Your task to perform on an android device: set an alarm Image 0: 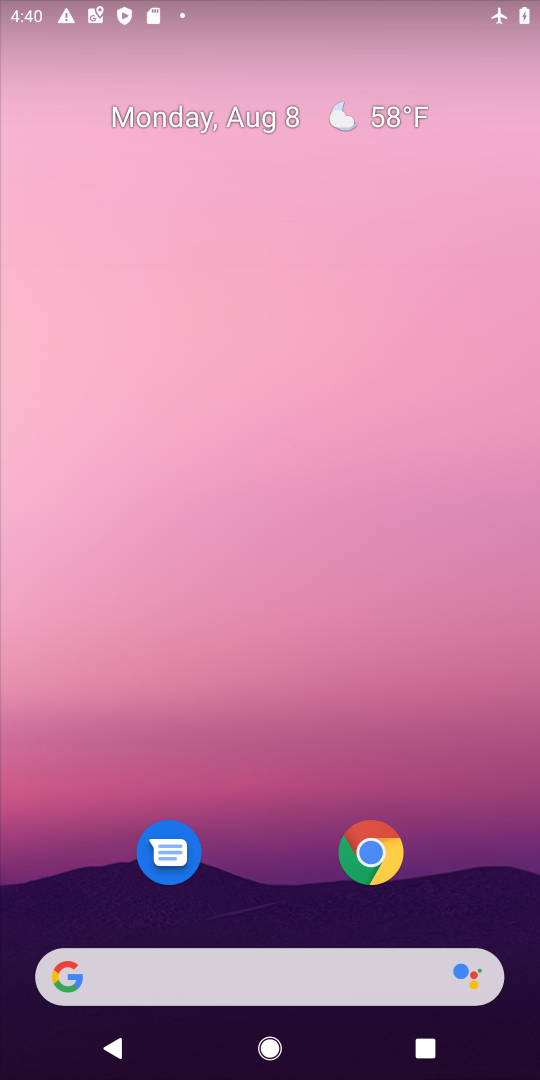
Step 0: click (515, 349)
Your task to perform on an android device: set an alarm Image 1: 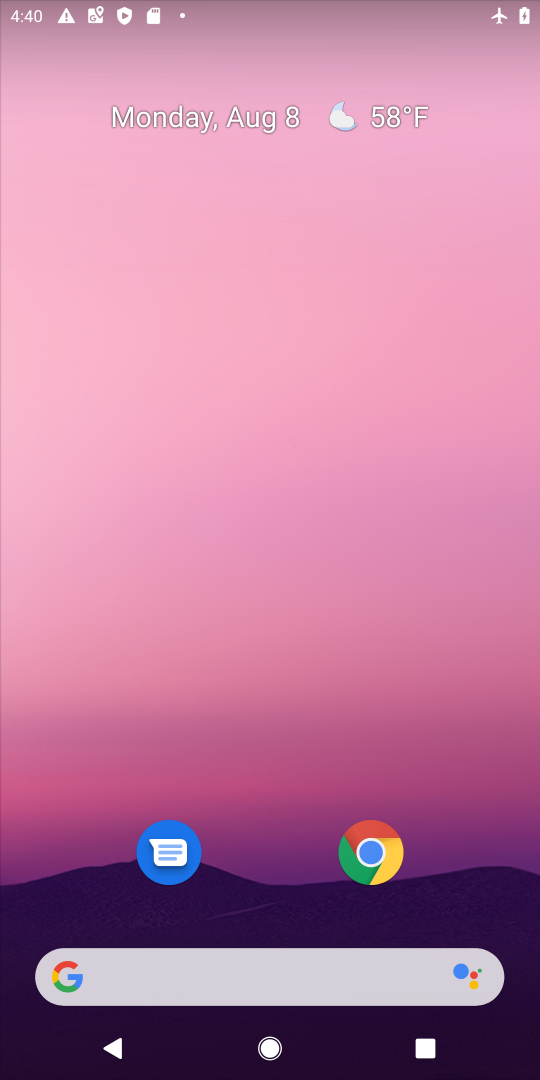
Step 1: drag from (265, 854) to (355, 1)
Your task to perform on an android device: set an alarm Image 2: 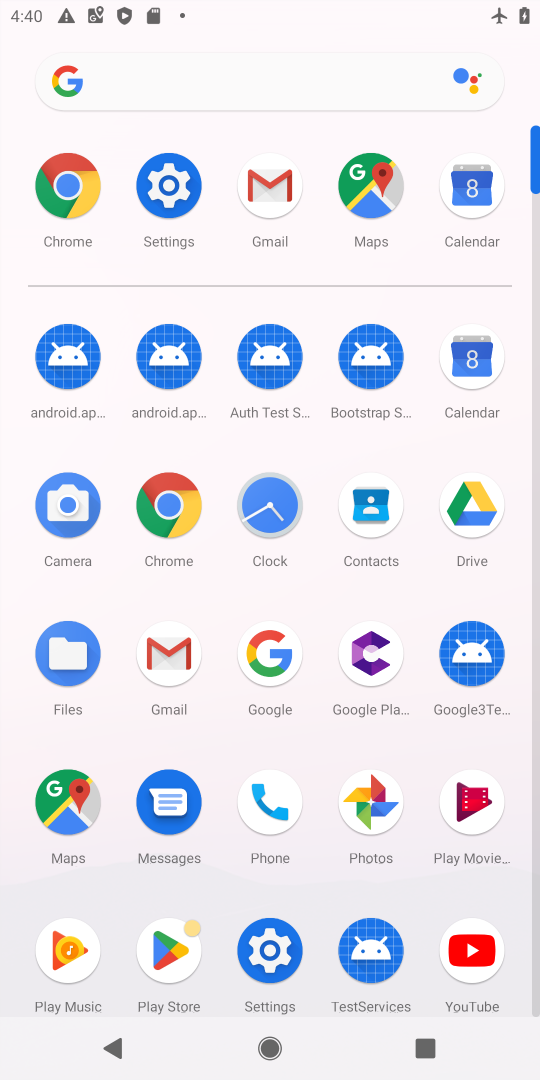
Step 2: click (273, 505)
Your task to perform on an android device: set an alarm Image 3: 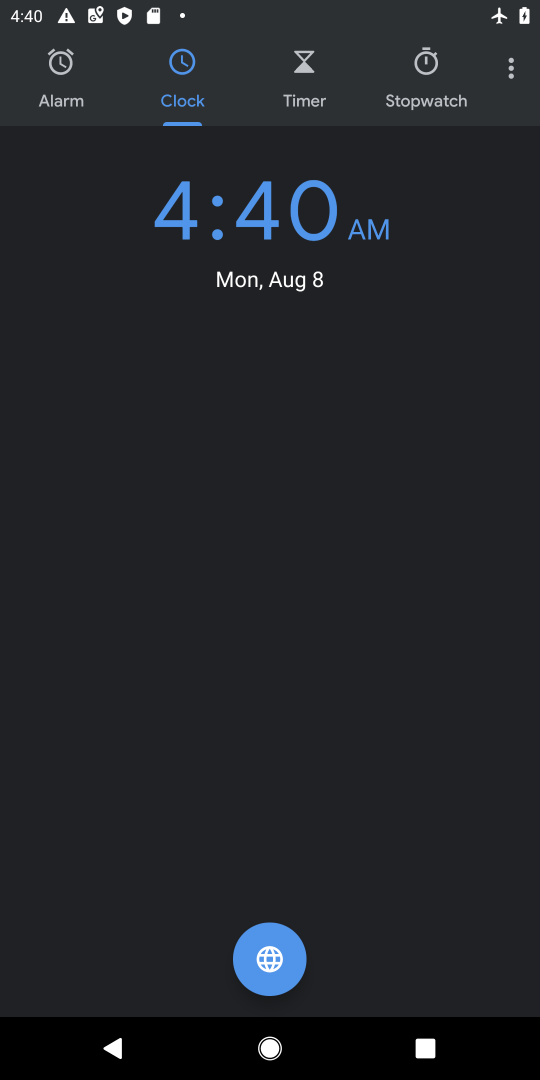
Step 3: click (85, 71)
Your task to perform on an android device: set an alarm Image 4: 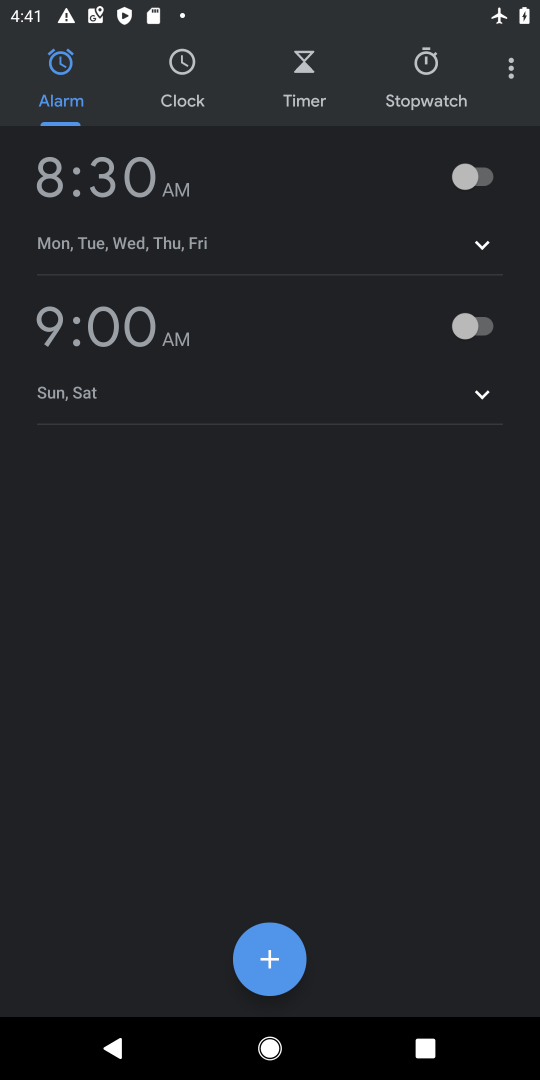
Step 4: click (286, 963)
Your task to perform on an android device: set an alarm Image 5: 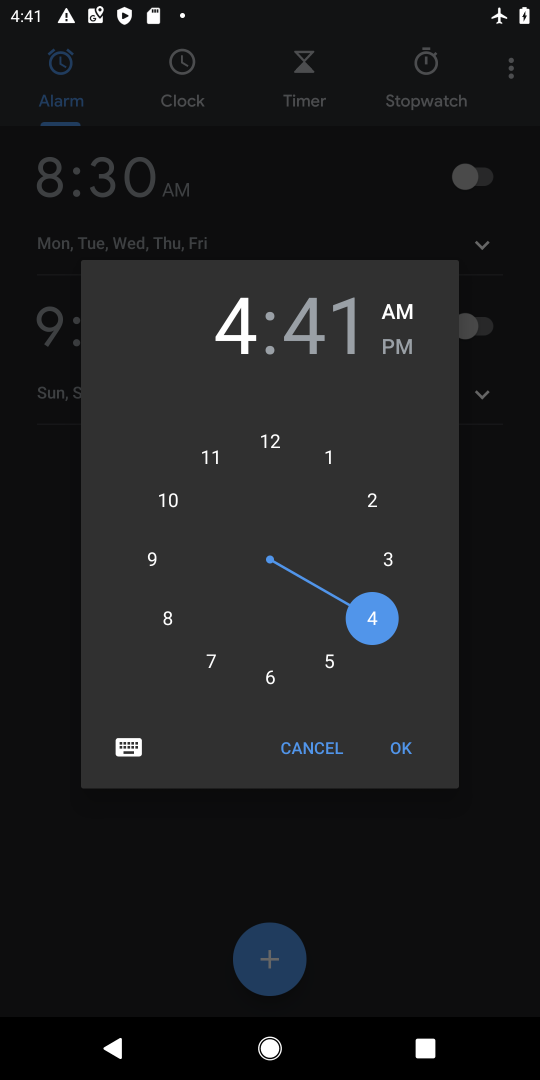
Step 5: click (404, 738)
Your task to perform on an android device: set an alarm Image 6: 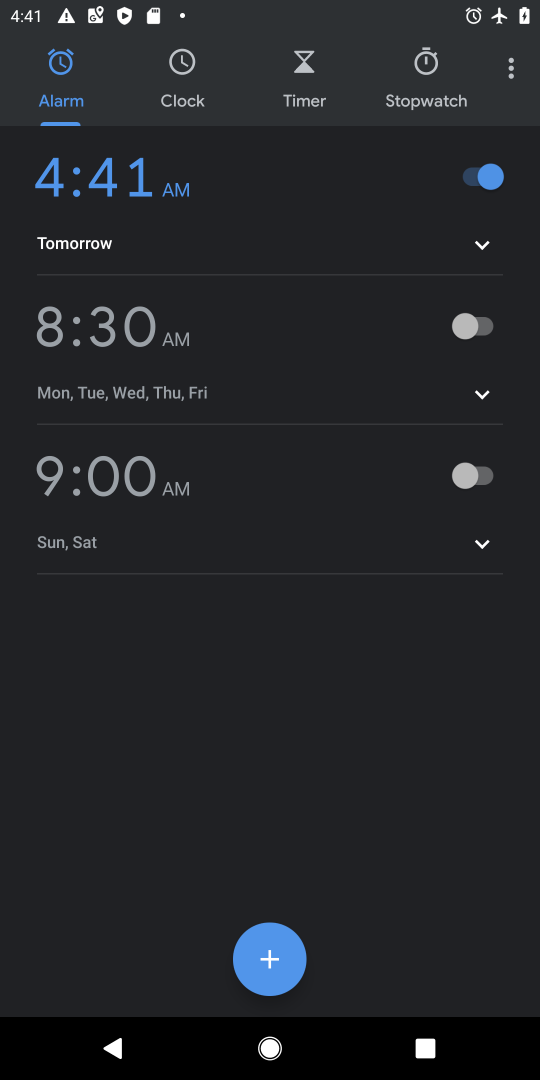
Step 6: task complete